Your task to perform on an android device: turn on wifi Image 0: 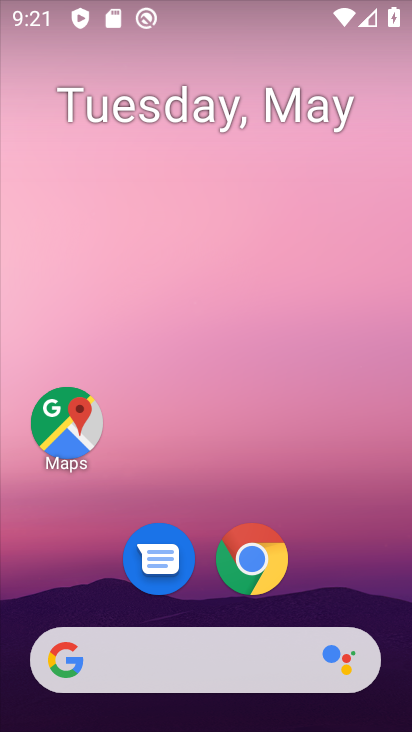
Step 0: drag from (330, 465) to (374, 150)
Your task to perform on an android device: turn on wifi Image 1: 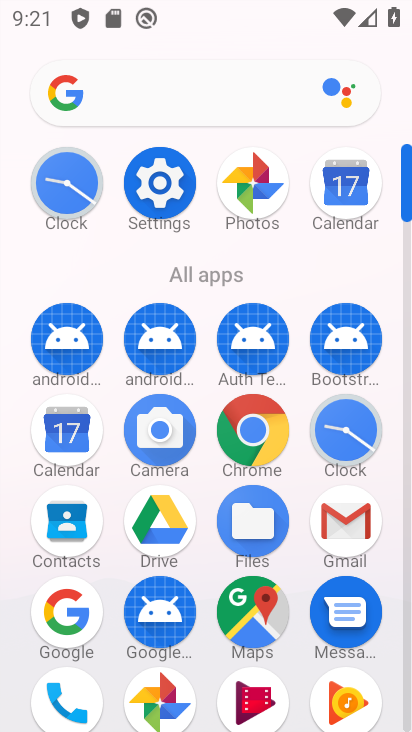
Step 1: click (158, 175)
Your task to perform on an android device: turn on wifi Image 2: 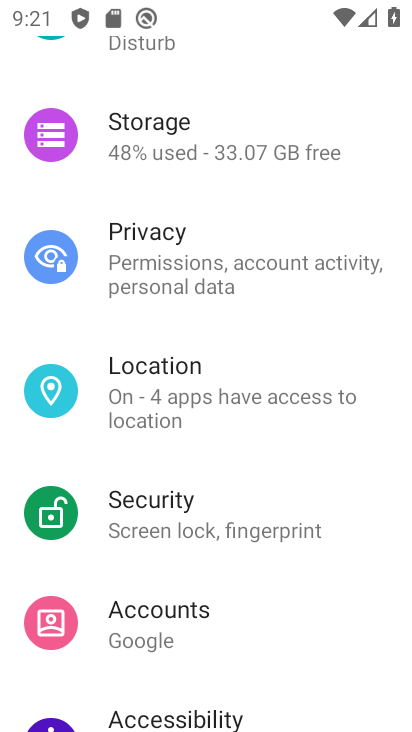
Step 2: drag from (240, 164) to (251, 574)
Your task to perform on an android device: turn on wifi Image 3: 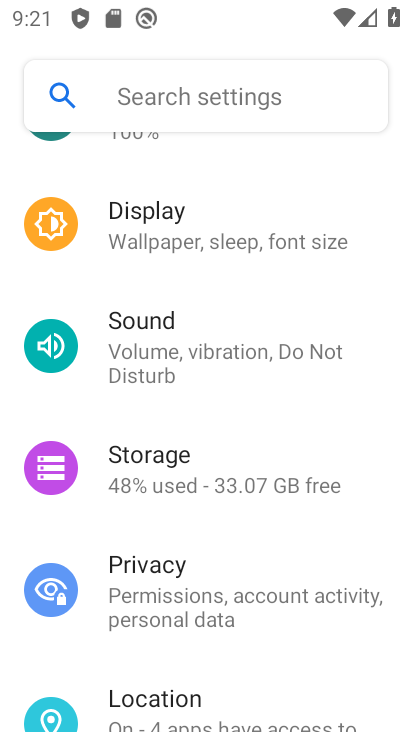
Step 3: drag from (283, 222) to (259, 468)
Your task to perform on an android device: turn on wifi Image 4: 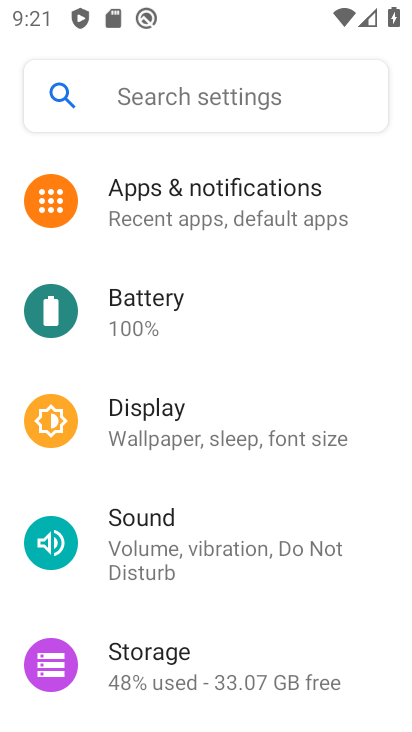
Step 4: click (248, 220)
Your task to perform on an android device: turn on wifi Image 5: 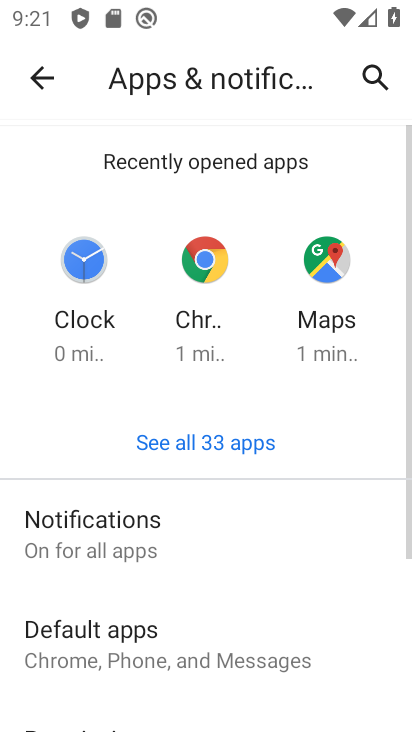
Step 5: click (45, 68)
Your task to perform on an android device: turn on wifi Image 6: 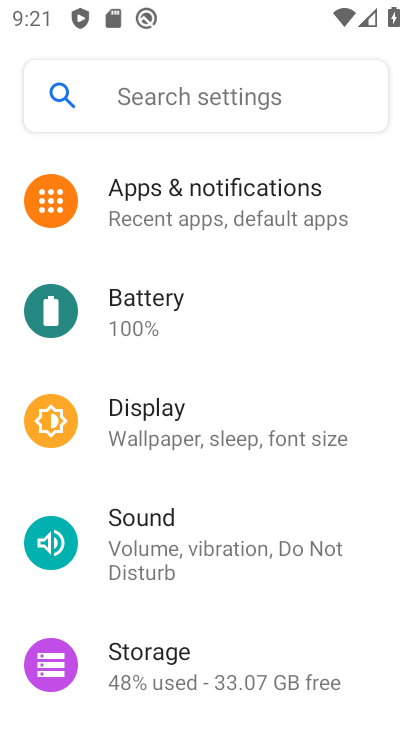
Step 6: drag from (253, 164) to (266, 596)
Your task to perform on an android device: turn on wifi Image 7: 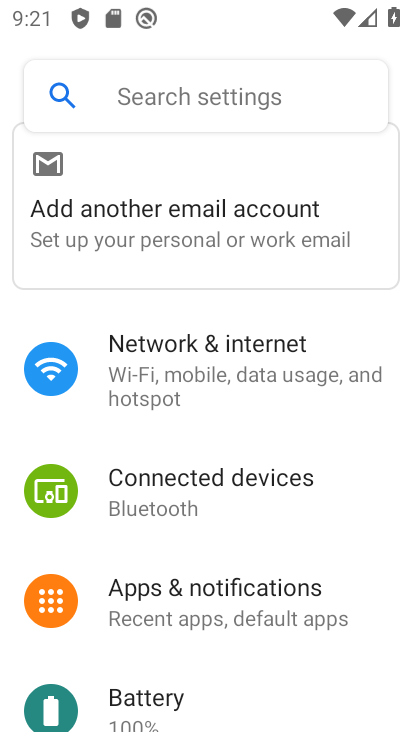
Step 7: drag from (232, 236) to (253, 522)
Your task to perform on an android device: turn on wifi Image 8: 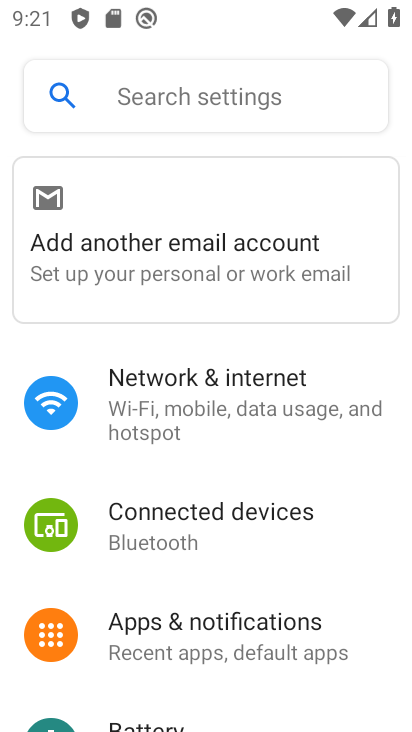
Step 8: click (216, 393)
Your task to perform on an android device: turn on wifi Image 9: 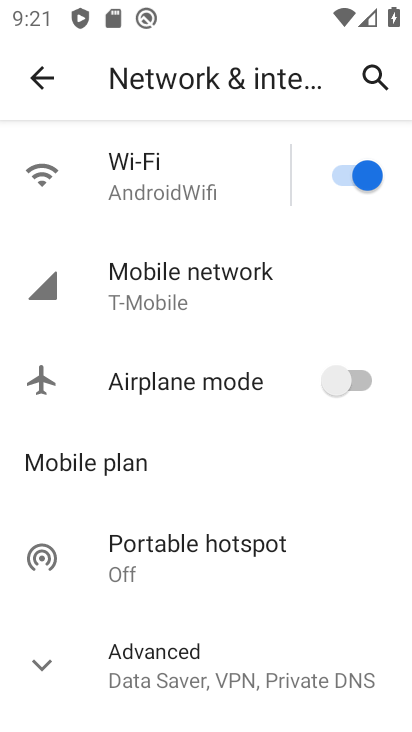
Step 9: task complete